Your task to perform on an android device: turn off javascript in the chrome app Image 0: 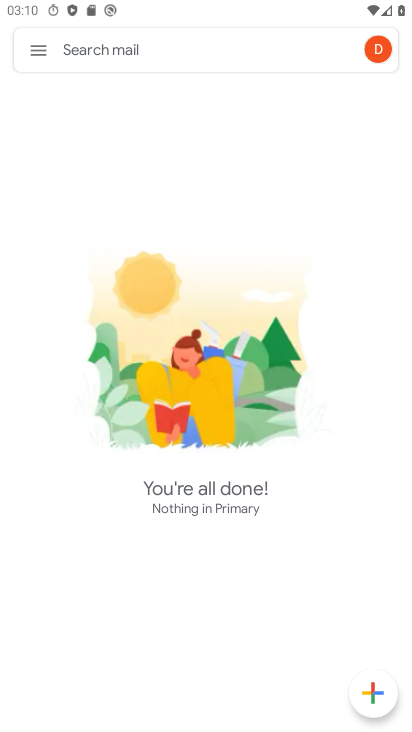
Step 0: press home button
Your task to perform on an android device: turn off javascript in the chrome app Image 1: 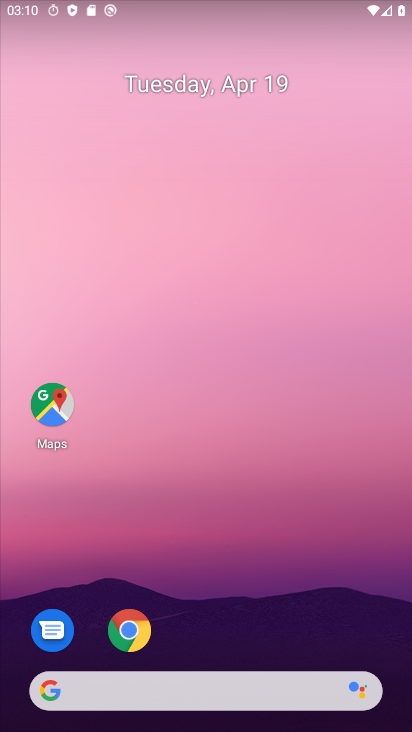
Step 1: click (128, 634)
Your task to perform on an android device: turn off javascript in the chrome app Image 2: 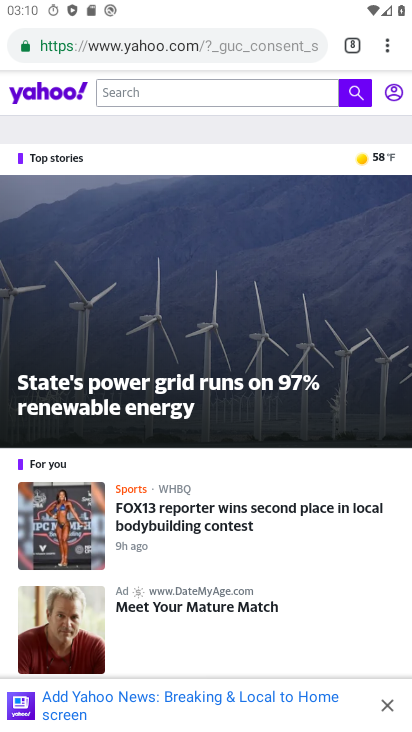
Step 2: click (386, 42)
Your task to perform on an android device: turn off javascript in the chrome app Image 3: 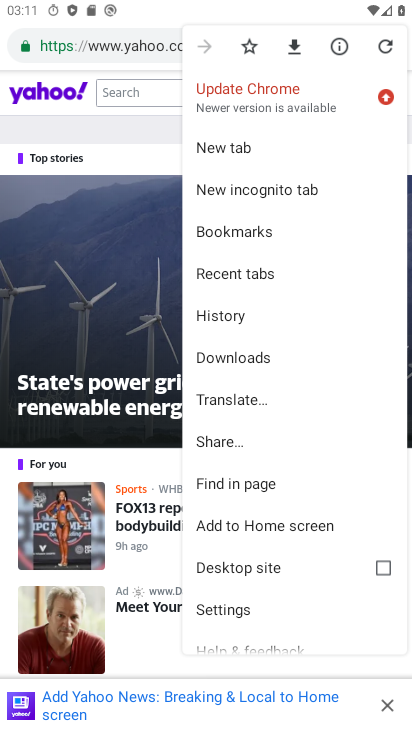
Step 3: click (235, 605)
Your task to perform on an android device: turn off javascript in the chrome app Image 4: 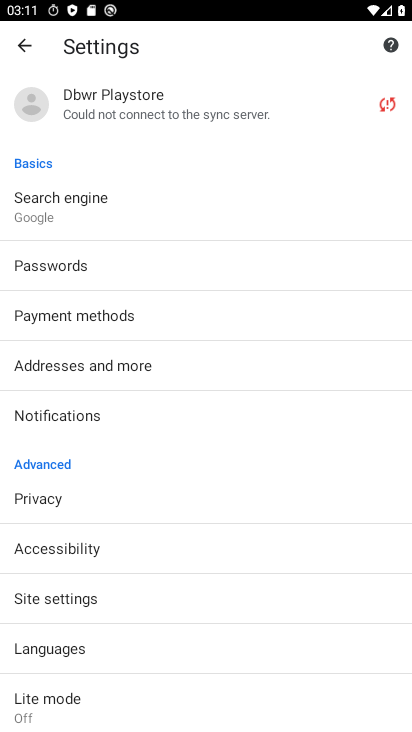
Step 4: click (95, 592)
Your task to perform on an android device: turn off javascript in the chrome app Image 5: 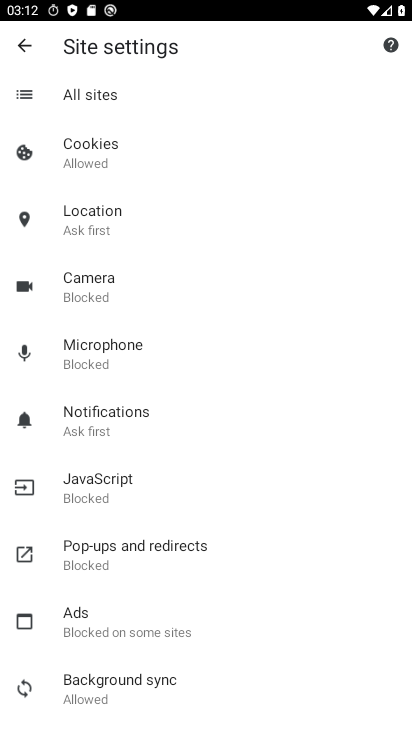
Step 5: click (99, 477)
Your task to perform on an android device: turn off javascript in the chrome app Image 6: 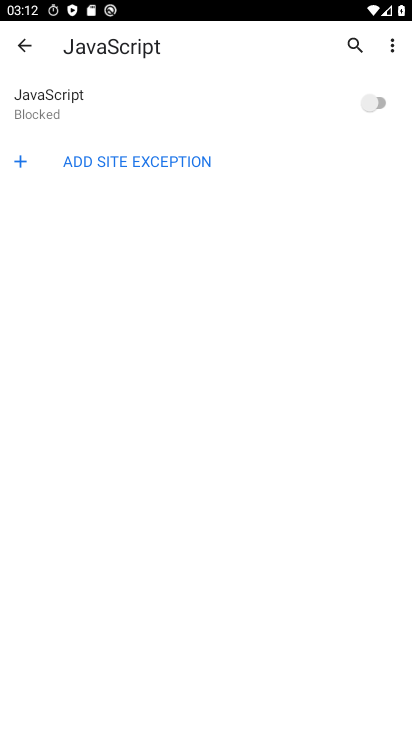
Step 6: task complete